Your task to perform on an android device: Go to CNN.com Image 0: 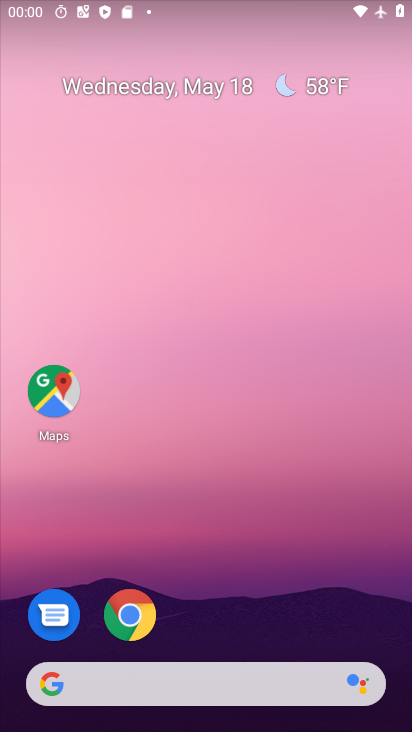
Step 0: click (152, 611)
Your task to perform on an android device: Go to CNN.com Image 1: 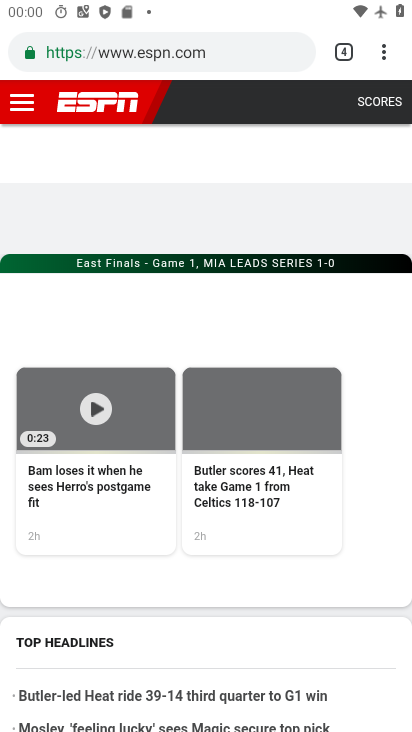
Step 1: click (339, 45)
Your task to perform on an android device: Go to CNN.com Image 2: 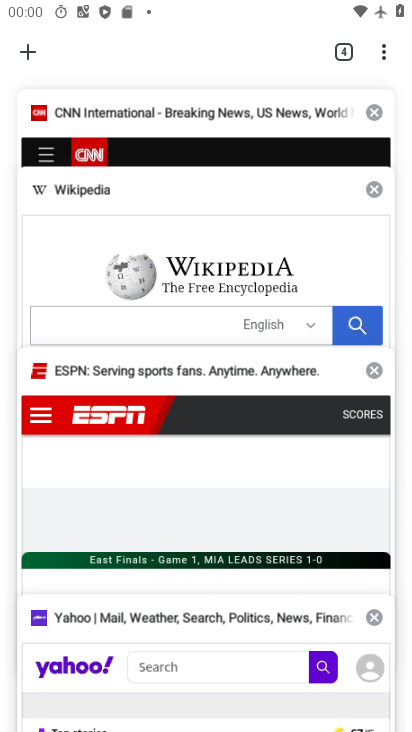
Step 2: click (144, 120)
Your task to perform on an android device: Go to CNN.com Image 3: 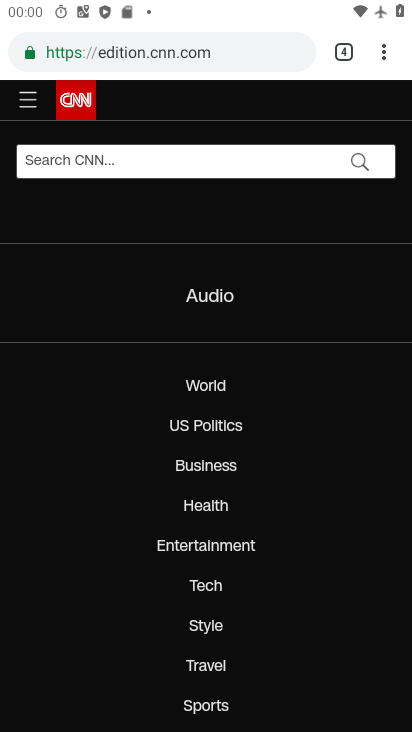
Step 3: task complete